Your task to perform on an android device: Go to ESPN.com Image 0: 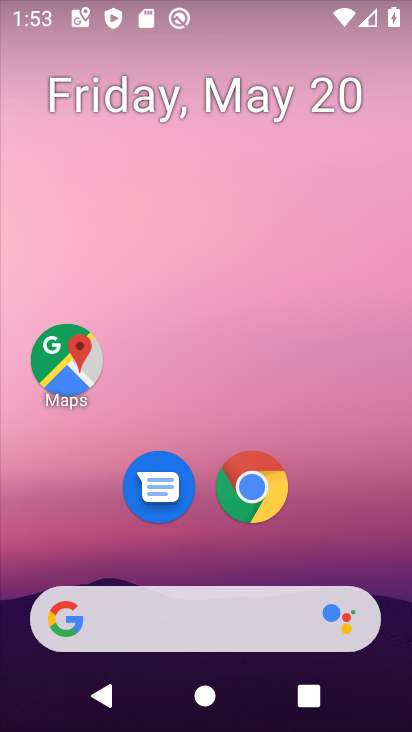
Step 0: click (262, 488)
Your task to perform on an android device: Go to ESPN.com Image 1: 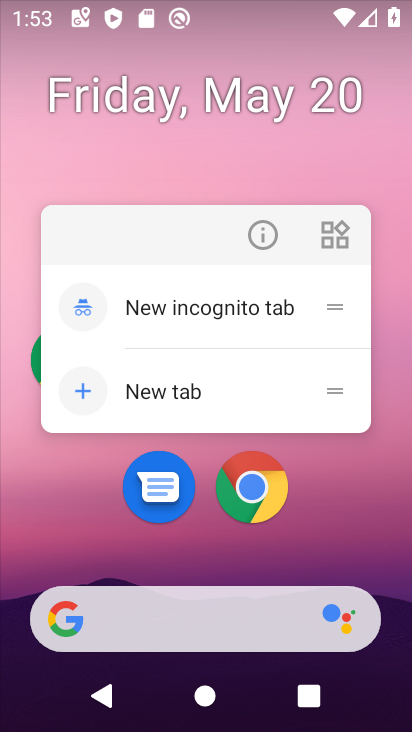
Step 1: click (262, 487)
Your task to perform on an android device: Go to ESPN.com Image 2: 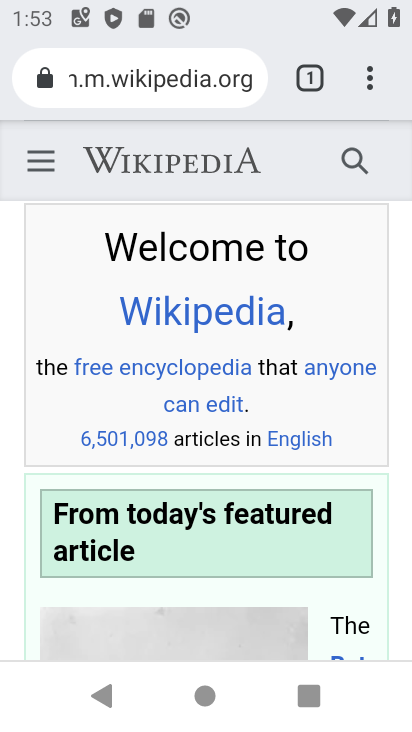
Step 2: click (178, 90)
Your task to perform on an android device: Go to ESPN.com Image 3: 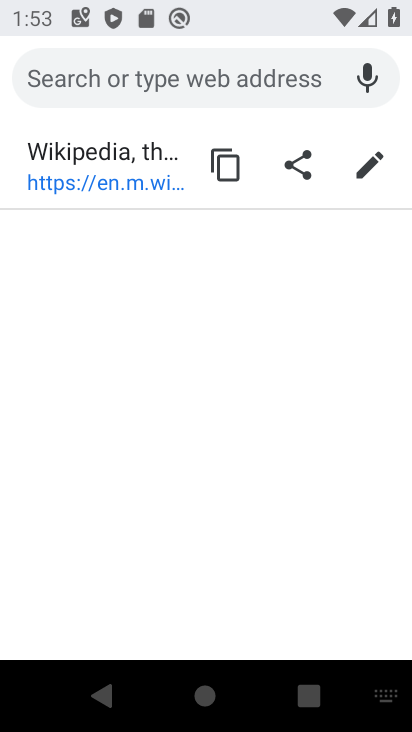
Step 3: type "espn"
Your task to perform on an android device: Go to ESPN.com Image 4: 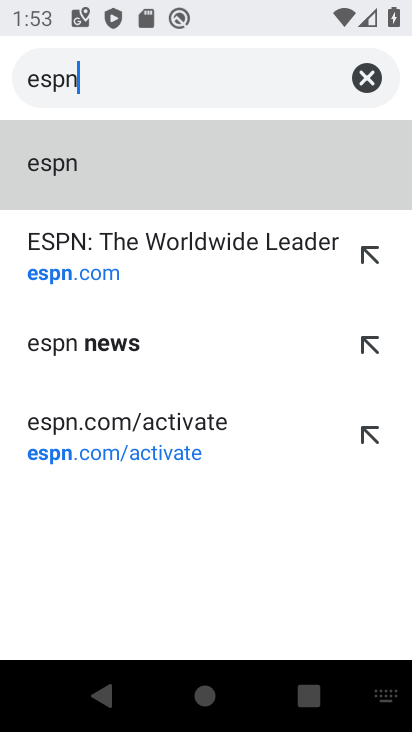
Step 4: click (48, 224)
Your task to perform on an android device: Go to ESPN.com Image 5: 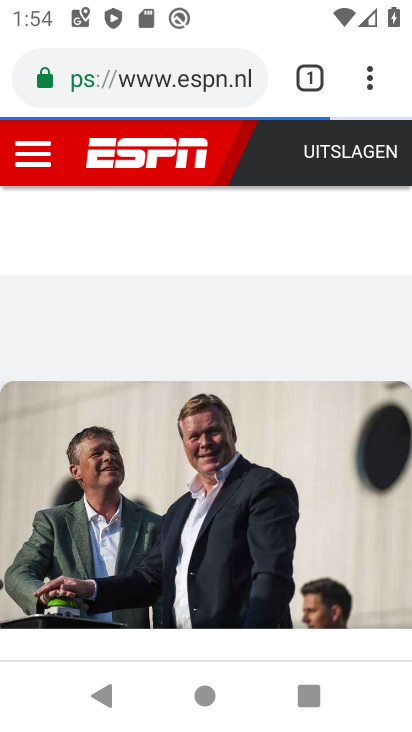
Step 5: task complete